Your task to perform on an android device: check out phone information Image 0: 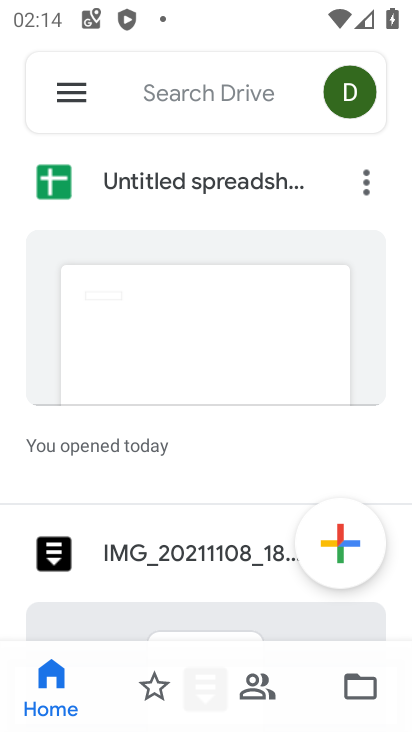
Step 0: press home button
Your task to perform on an android device: check out phone information Image 1: 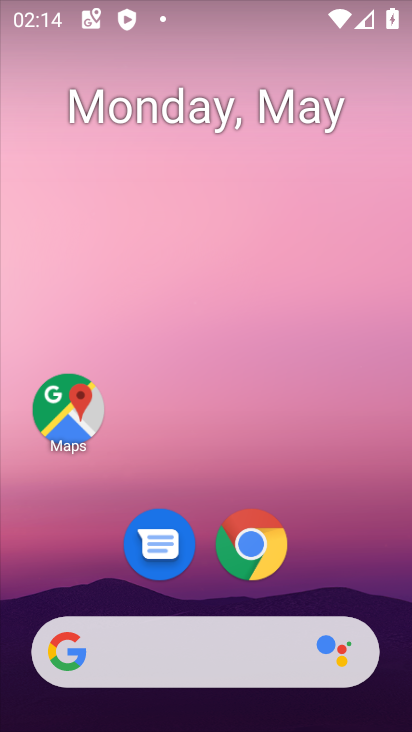
Step 1: drag from (372, 579) to (337, 266)
Your task to perform on an android device: check out phone information Image 2: 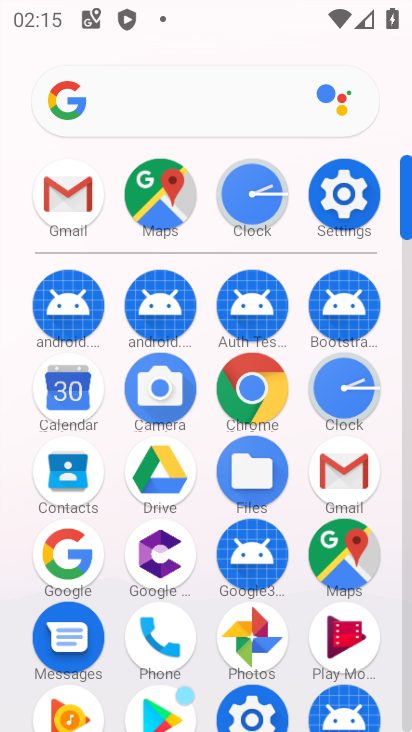
Step 2: click (180, 643)
Your task to perform on an android device: check out phone information Image 3: 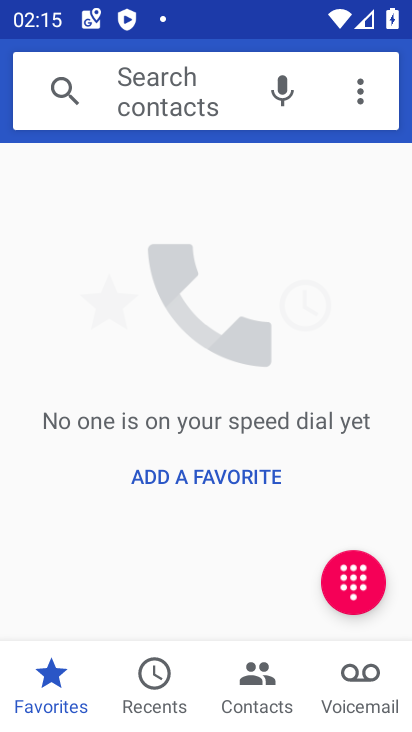
Step 3: click (158, 675)
Your task to perform on an android device: check out phone information Image 4: 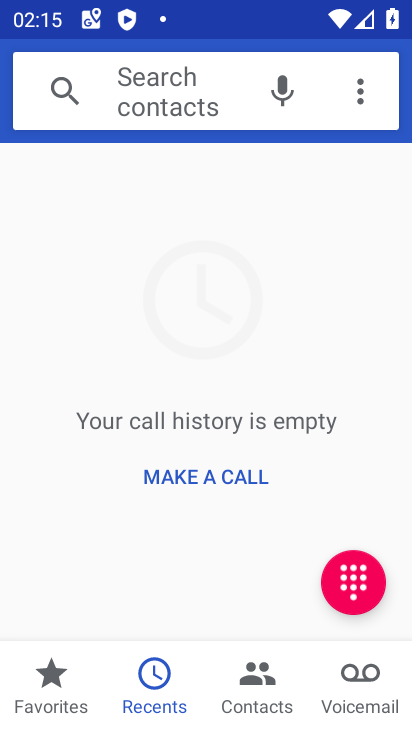
Step 4: task complete